Your task to perform on an android device: Find coffee shops on Maps Image 0: 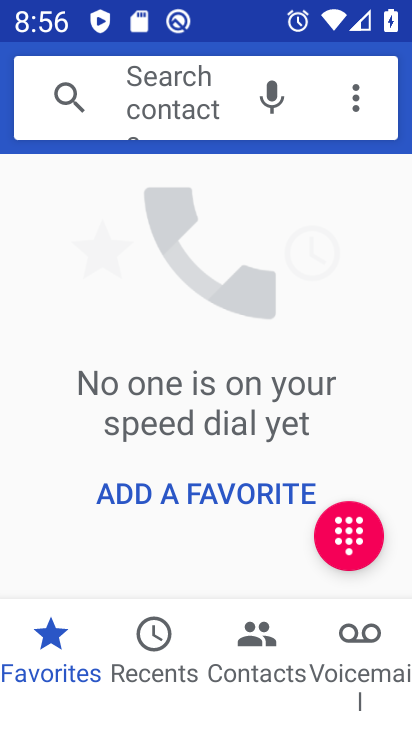
Step 0: press home button
Your task to perform on an android device: Find coffee shops on Maps Image 1: 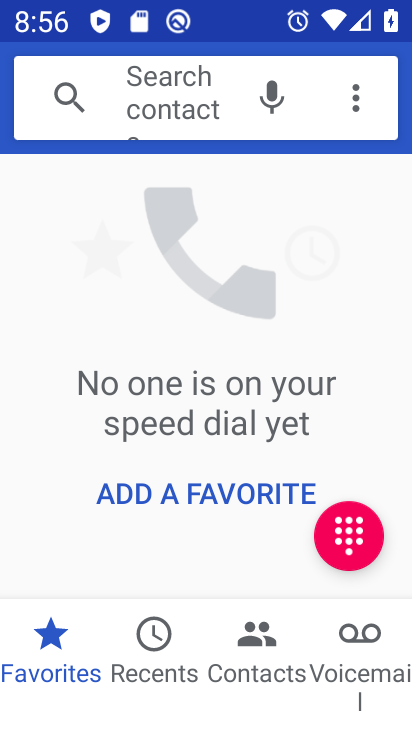
Step 1: press home button
Your task to perform on an android device: Find coffee shops on Maps Image 2: 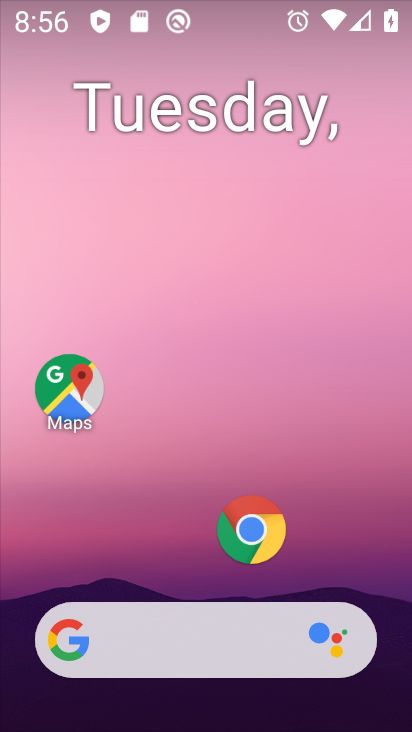
Step 2: press home button
Your task to perform on an android device: Find coffee shops on Maps Image 3: 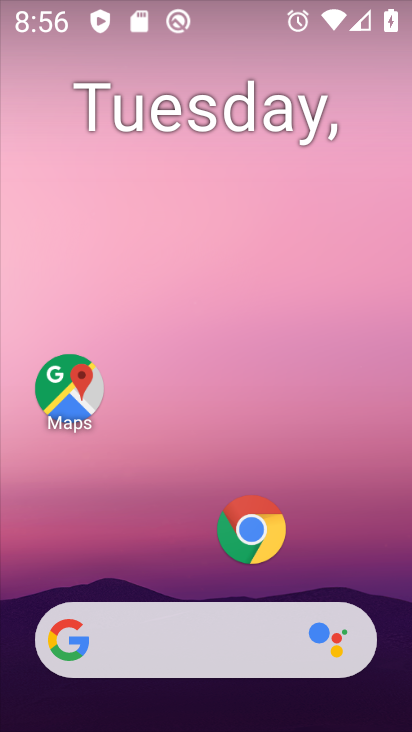
Step 3: click (67, 384)
Your task to perform on an android device: Find coffee shops on Maps Image 4: 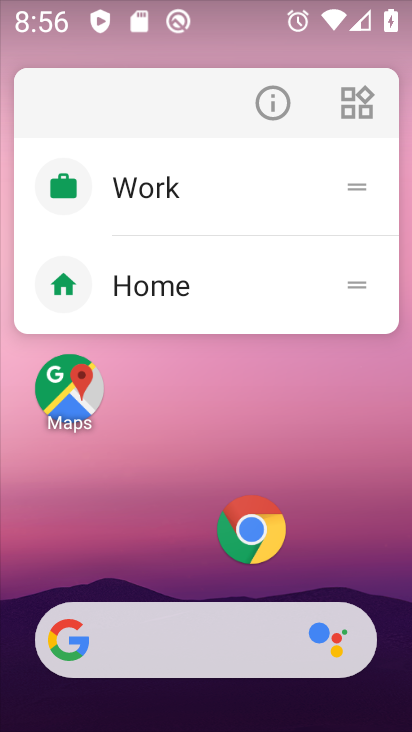
Step 4: click (70, 389)
Your task to perform on an android device: Find coffee shops on Maps Image 5: 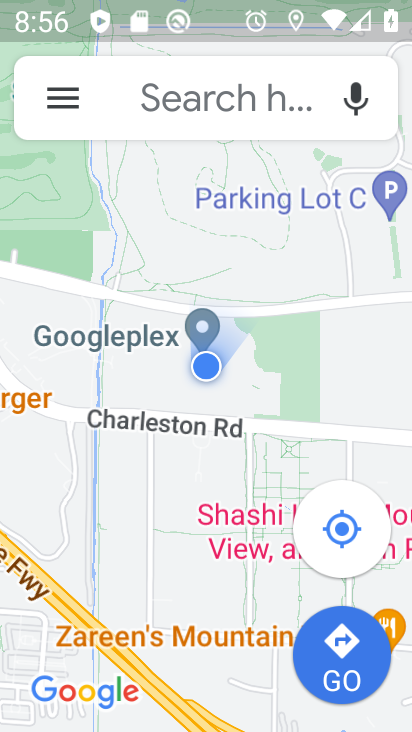
Step 5: click (171, 90)
Your task to perform on an android device: Find coffee shops on Maps Image 6: 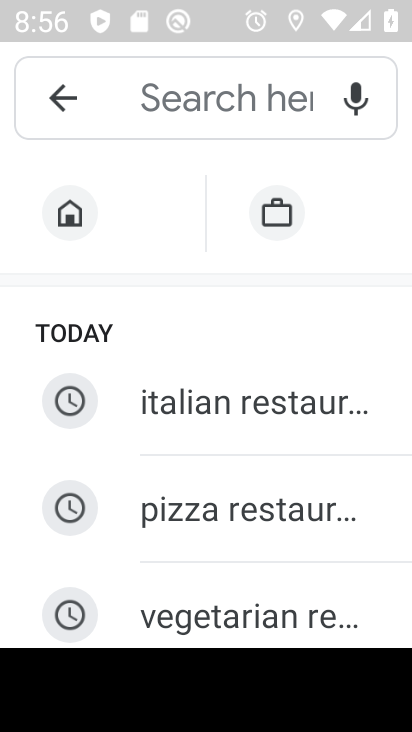
Step 6: type "coffee"
Your task to perform on an android device: Find coffee shops on Maps Image 7: 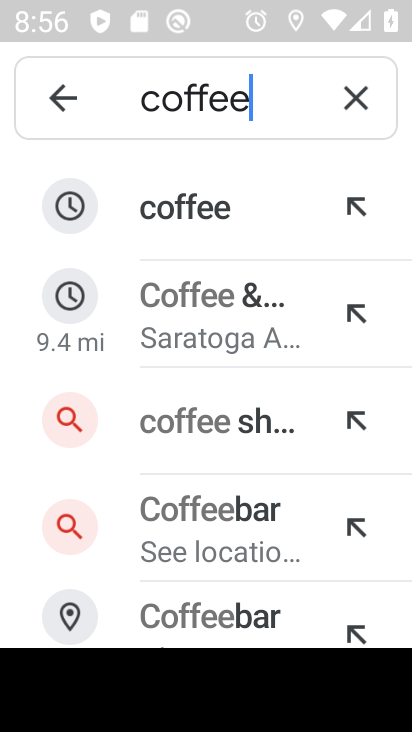
Step 7: click (249, 207)
Your task to perform on an android device: Find coffee shops on Maps Image 8: 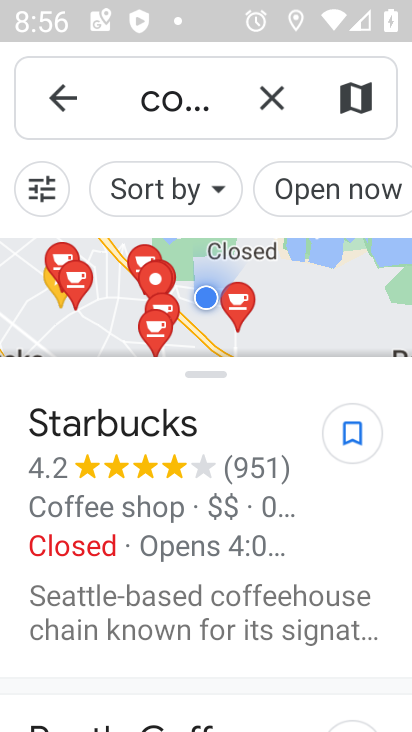
Step 8: task complete